Your task to perform on an android device: When is my next appointment? Image 0: 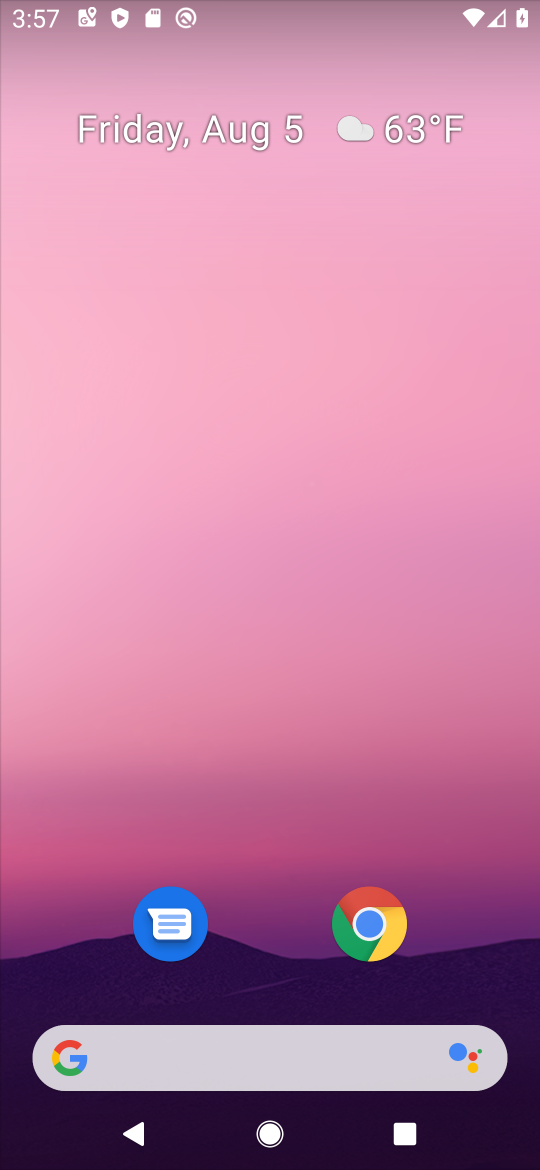
Step 0: drag from (314, 914) to (274, 209)
Your task to perform on an android device: When is my next appointment? Image 1: 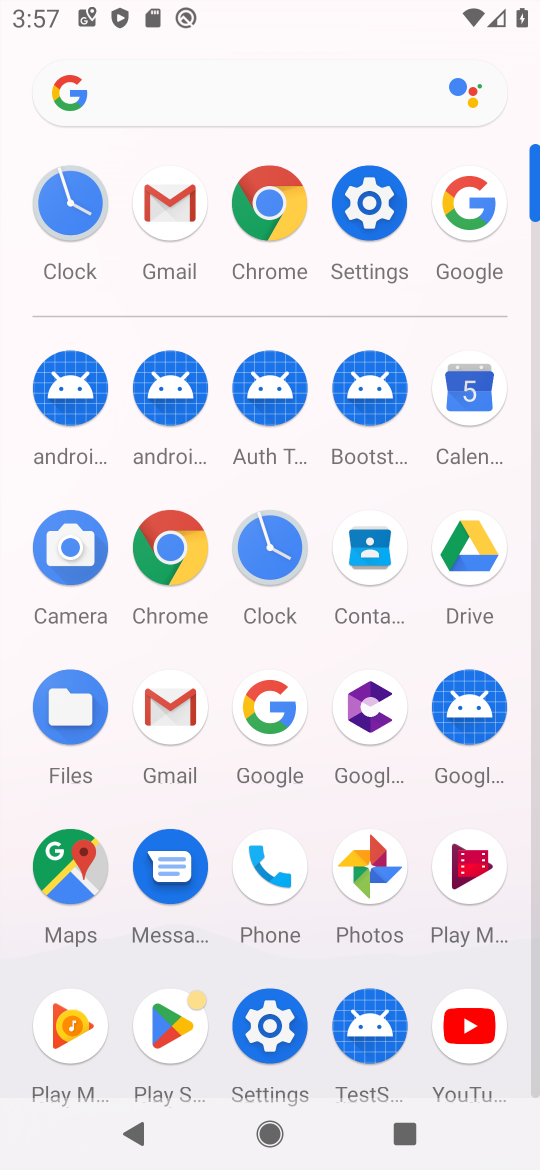
Step 1: click (462, 412)
Your task to perform on an android device: When is my next appointment? Image 2: 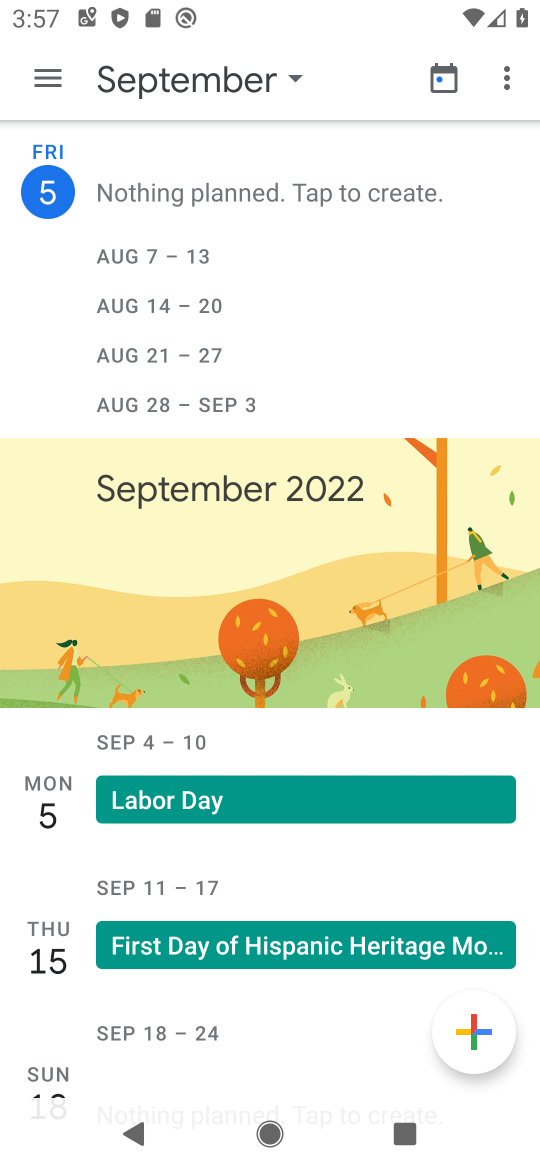
Step 2: task complete